Your task to perform on an android device: Search for seafood restaurants on Google Maps Image 0: 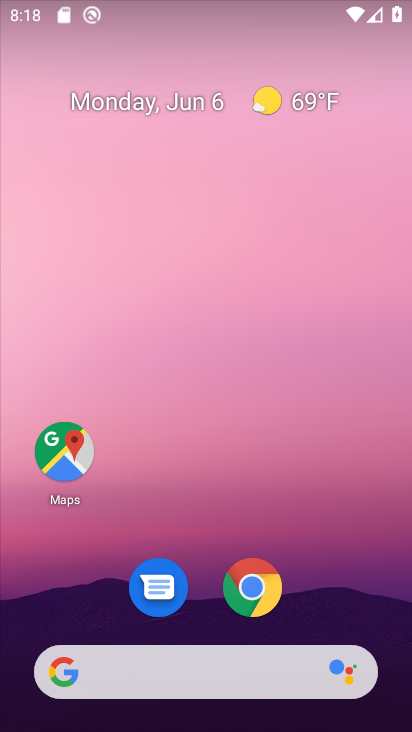
Step 0: drag from (361, 611) to (331, 129)
Your task to perform on an android device: Search for seafood restaurants on Google Maps Image 1: 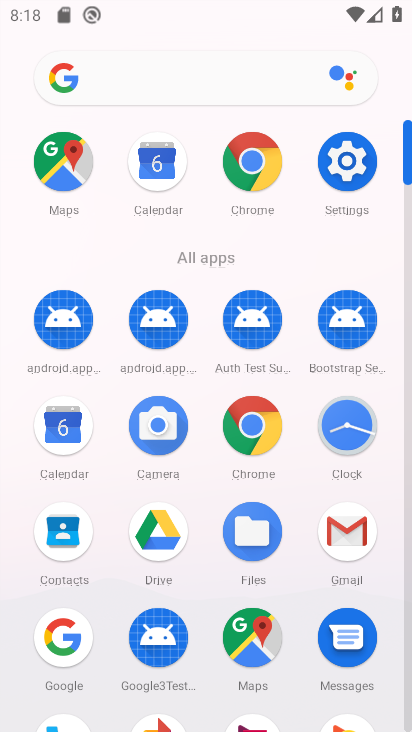
Step 1: click (252, 612)
Your task to perform on an android device: Search for seafood restaurants on Google Maps Image 2: 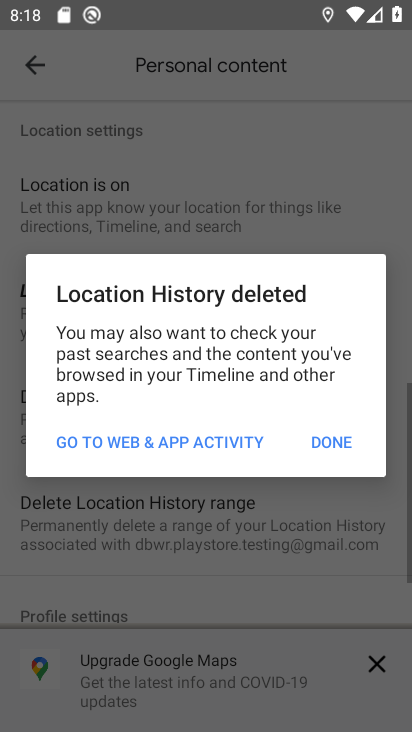
Step 2: click (331, 445)
Your task to perform on an android device: Search for seafood restaurants on Google Maps Image 3: 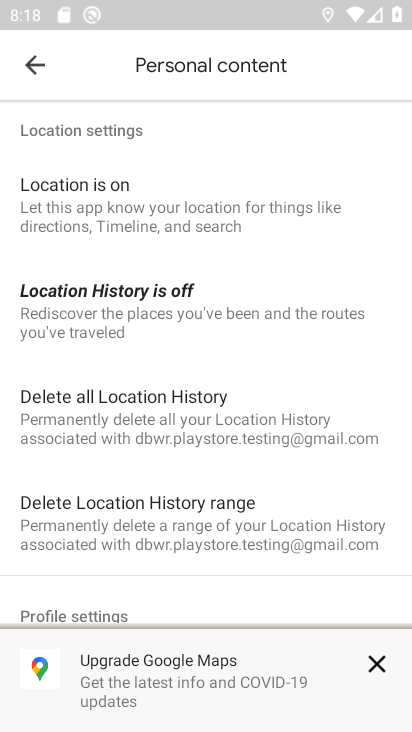
Step 3: click (42, 67)
Your task to perform on an android device: Search for seafood restaurants on Google Maps Image 4: 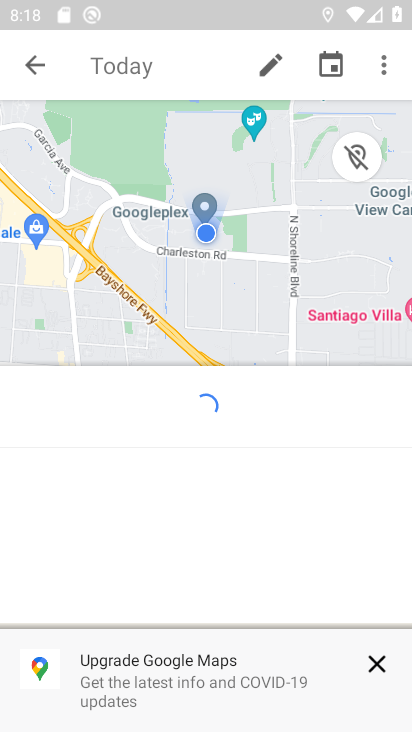
Step 4: click (42, 67)
Your task to perform on an android device: Search for seafood restaurants on Google Maps Image 5: 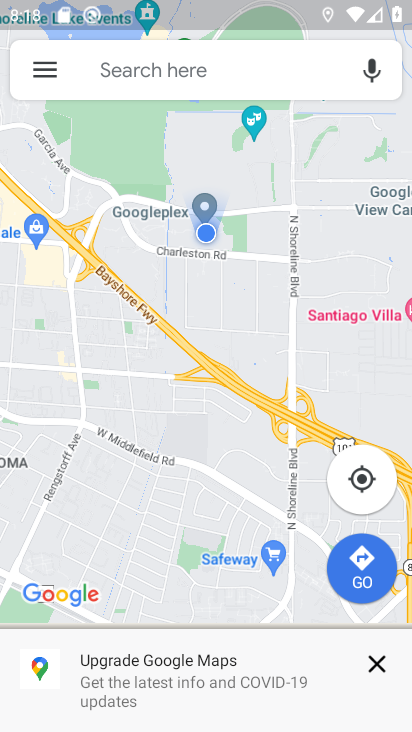
Step 5: click (188, 69)
Your task to perform on an android device: Search for seafood restaurants on Google Maps Image 6: 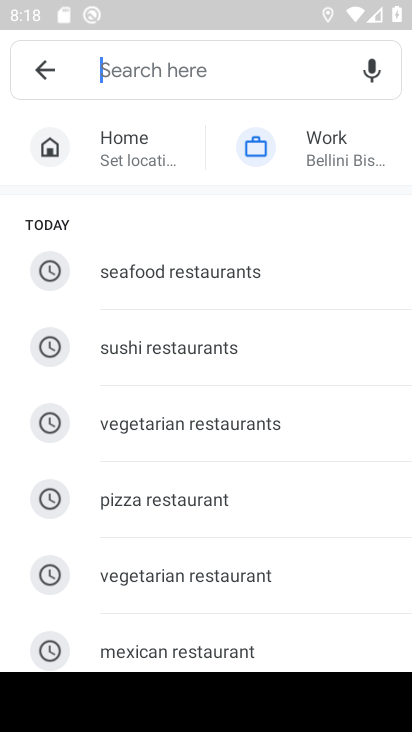
Step 6: click (228, 275)
Your task to perform on an android device: Search for seafood restaurants on Google Maps Image 7: 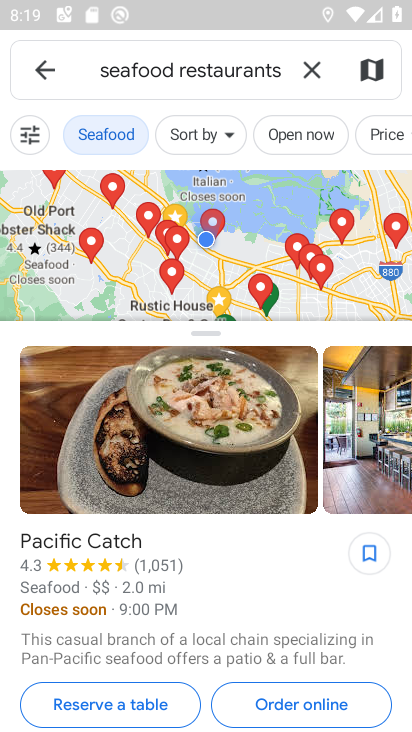
Step 7: task complete